Your task to perform on an android device: Show me popular games on the Play Store Image 0: 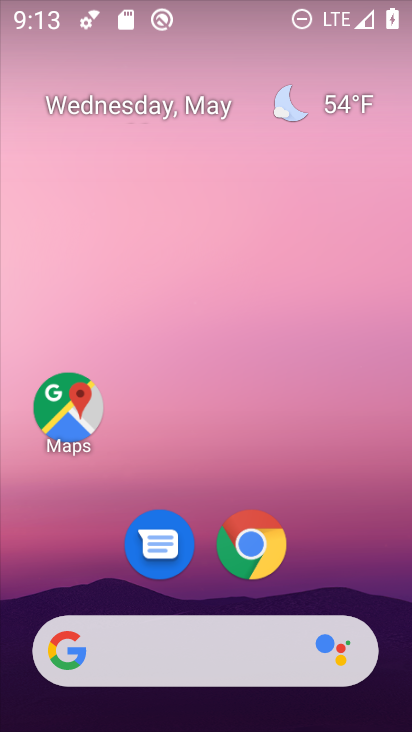
Step 0: drag from (214, 597) to (349, 215)
Your task to perform on an android device: Show me popular games on the Play Store Image 1: 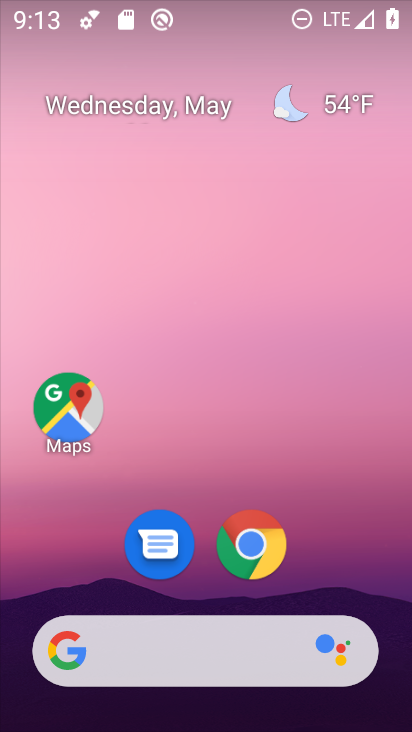
Step 1: drag from (190, 588) to (69, 195)
Your task to perform on an android device: Show me popular games on the Play Store Image 2: 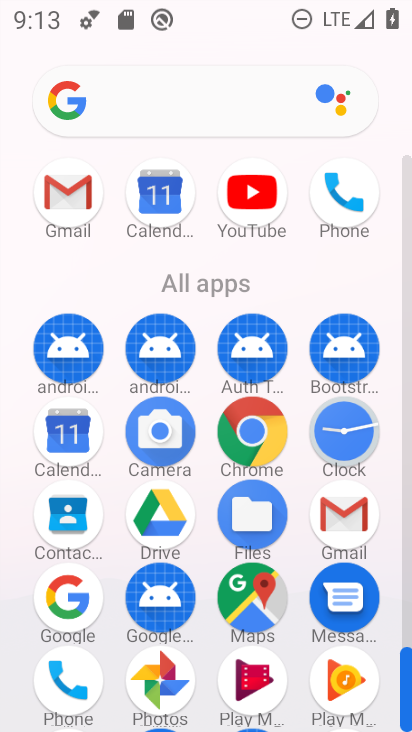
Step 2: drag from (197, 651) to (300, 113)
Your task to perform on an android device: Show me popular games on the Play Store Image 3: 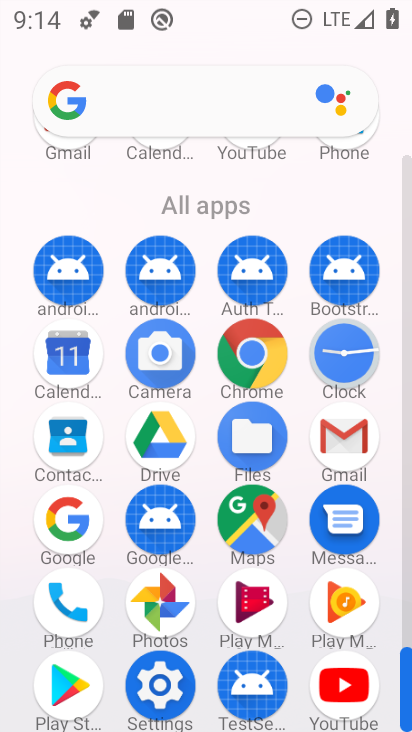
Step 3: click (83, 686)
Your task to perform on an android device: Show me popular games on the Play Store Image 4: 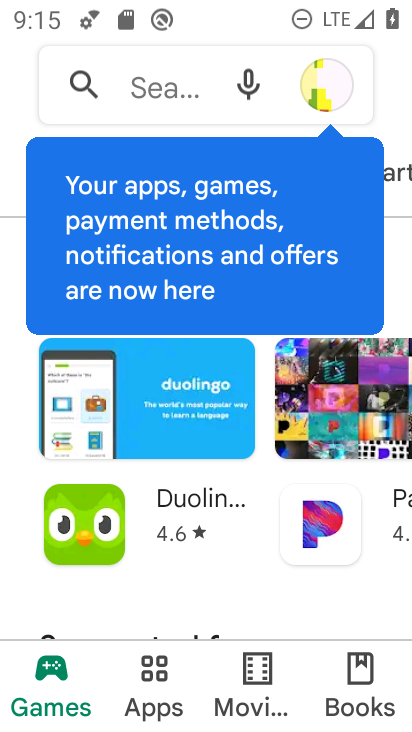
Step 4: click (156, 602)
Your task to perform on an android device: Show me popular games on the Play Store Image 5: 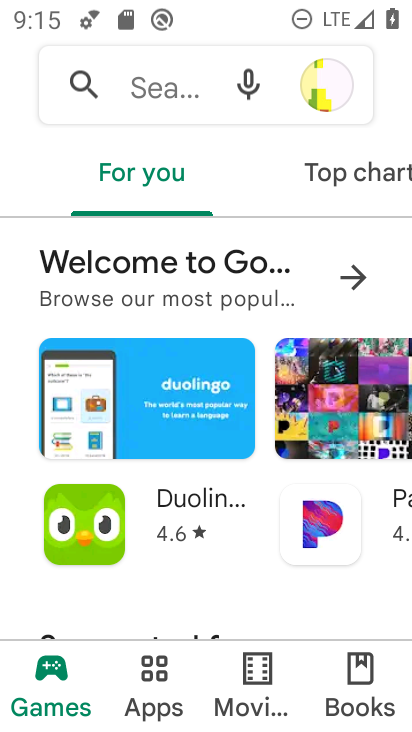
Step 5: click (369, 183)
Your task to perform on an android device: Show me popular games on the Play Store Image 6: 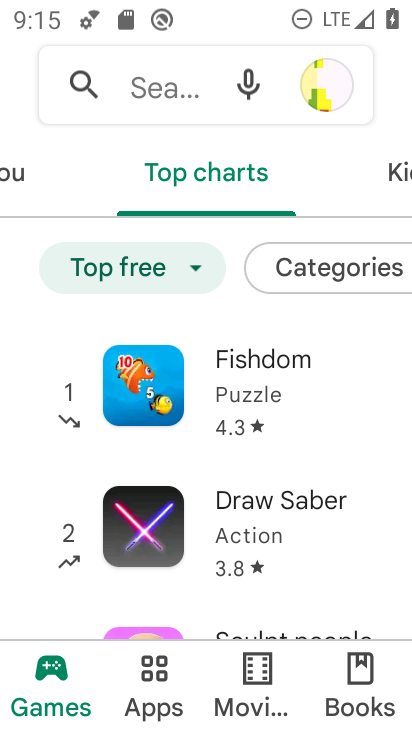
Step 6: task complete